Your task to perform on an android device: open app "DoorDash - Dasher" Image 0: 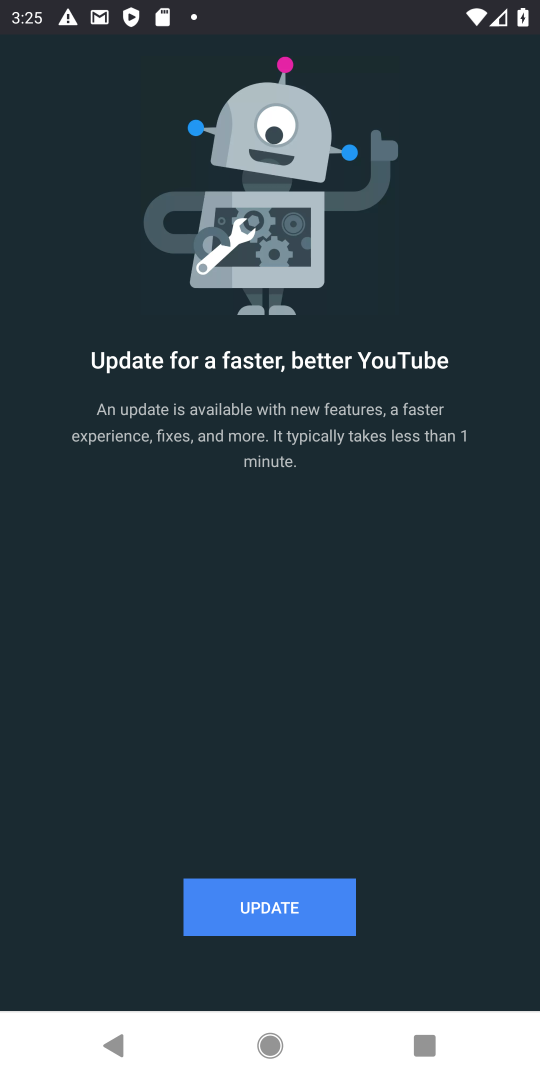
Step 0: press home button
Your task to perform on an android device: open app "DoorDash - Dasher" Image 1: 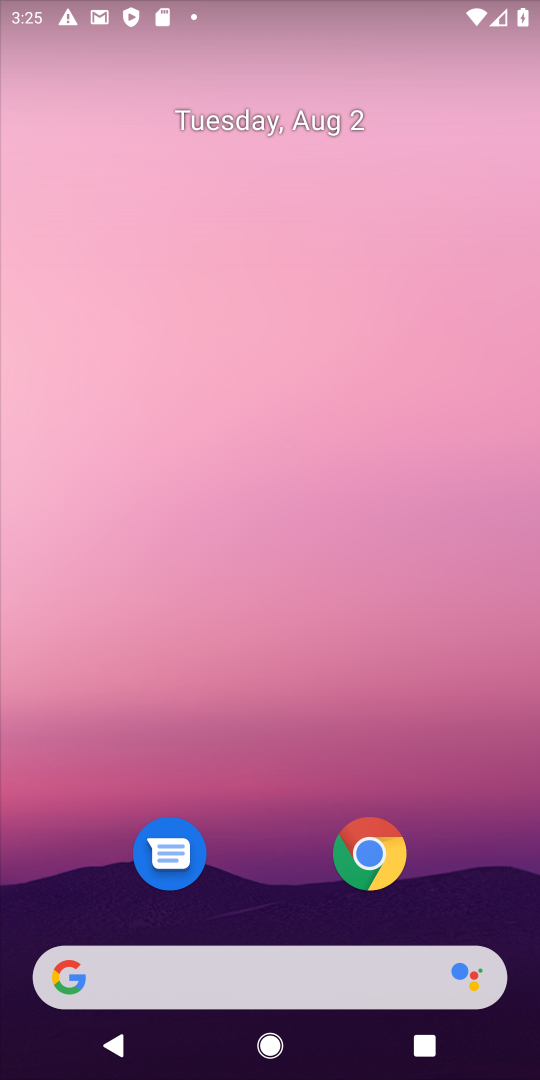
Step 1: drag from (305, 1074) to (305, 320)
Your task to perform on an android device: open app "DoorDash - Dasher" Image 2: 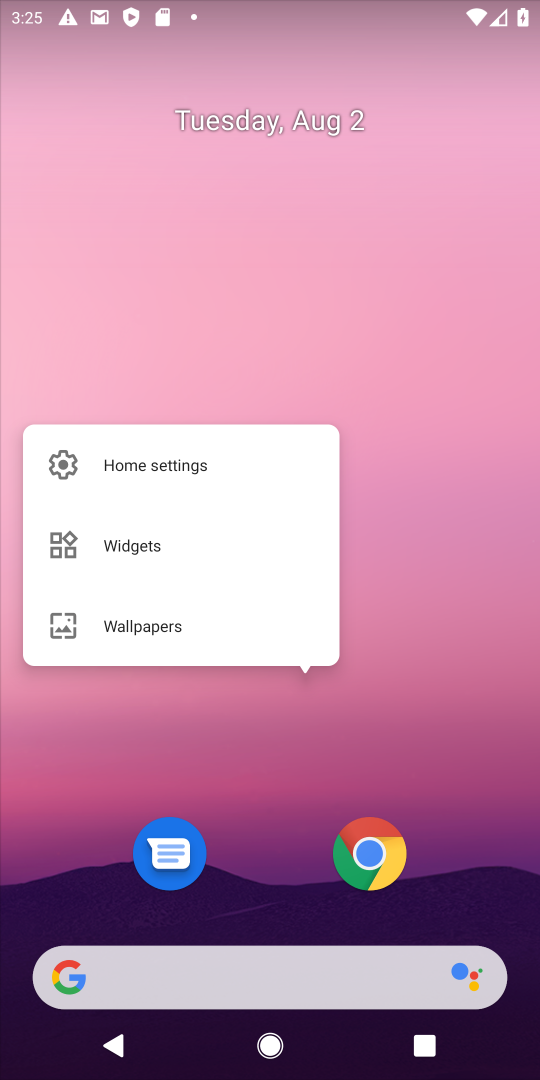
Step 2: click (368, 579)
Your task to perform on an android device: open app "DoorDash - Dasher" Image 3: 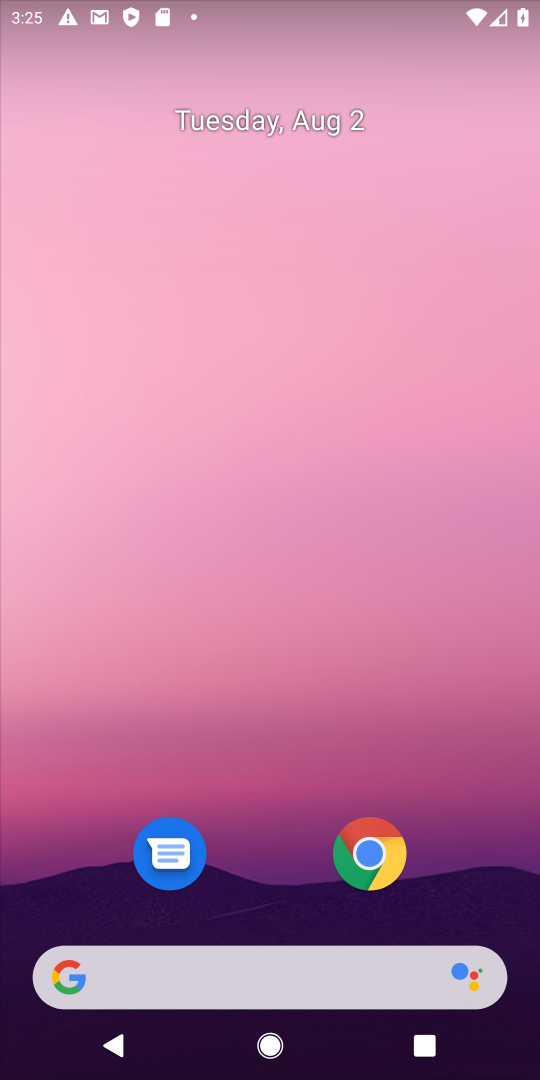
Step 3: drag from (311, 954) to (309, 746)
Your task to perform on an android device: open app "DoorDash - Dasher" Image 4: 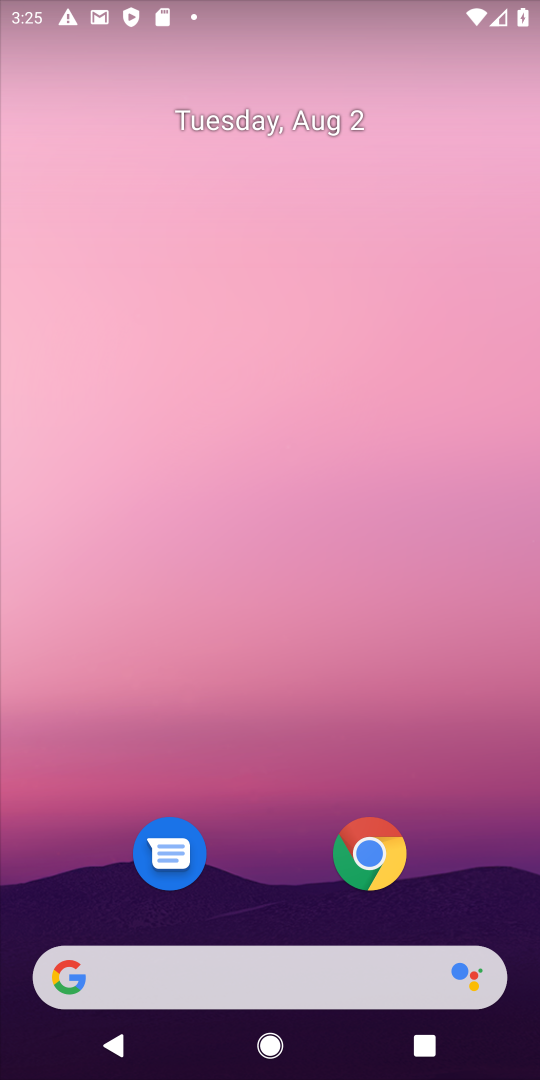
Step 4: drag from (298, 1077) to (298, 110)
Your task to perform on an android device: open app "DoorDash - Dasher" Image 5: 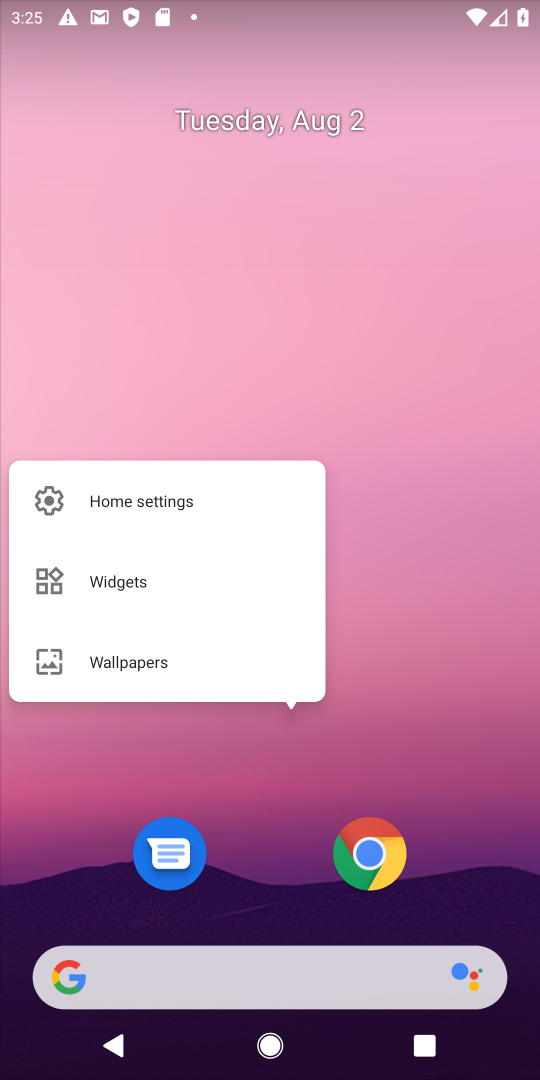
Step 5: click (345, 373)
Your task to perform on an android device: open app "DoorDash - Dasher" Image 6: 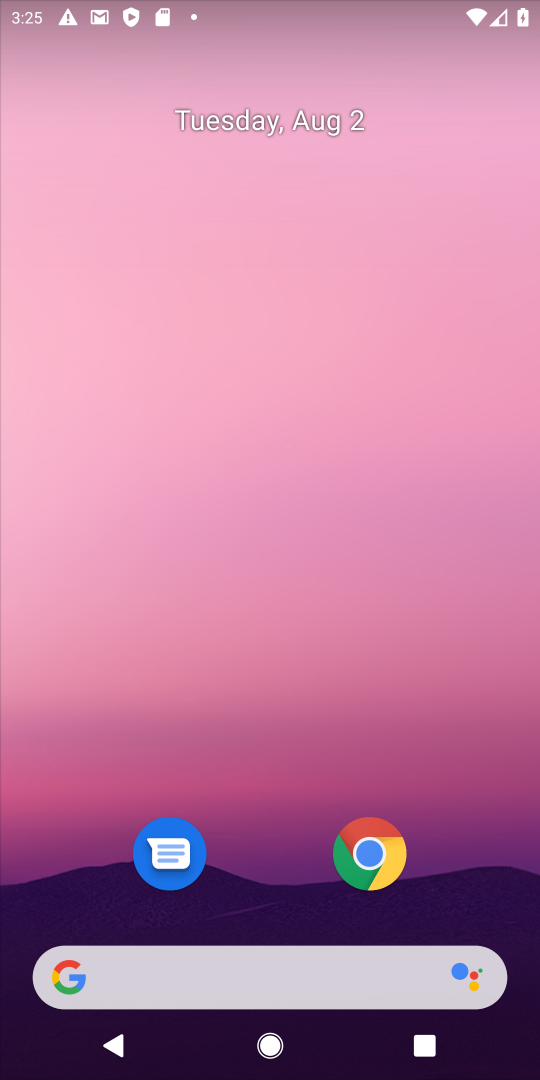
Step 6: drag from (303, 1073) to (329, 324)
Your task to perform on an android device: open app "DoorDash - Dasher" Image 7: 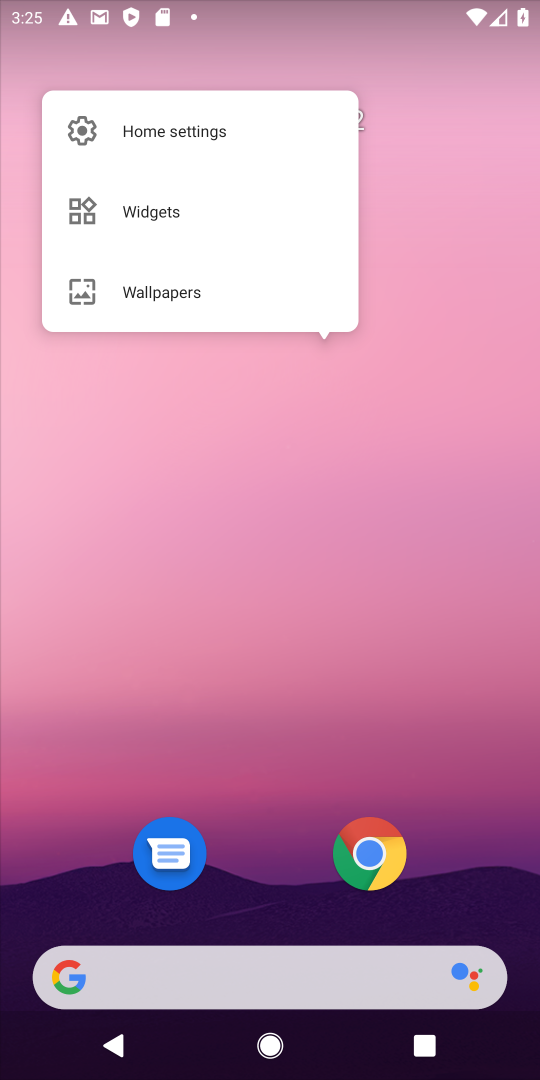
Step 7: click (347, 552)
Your task to perform on an android device: open app "DoorDash - Dasher" Image 8: 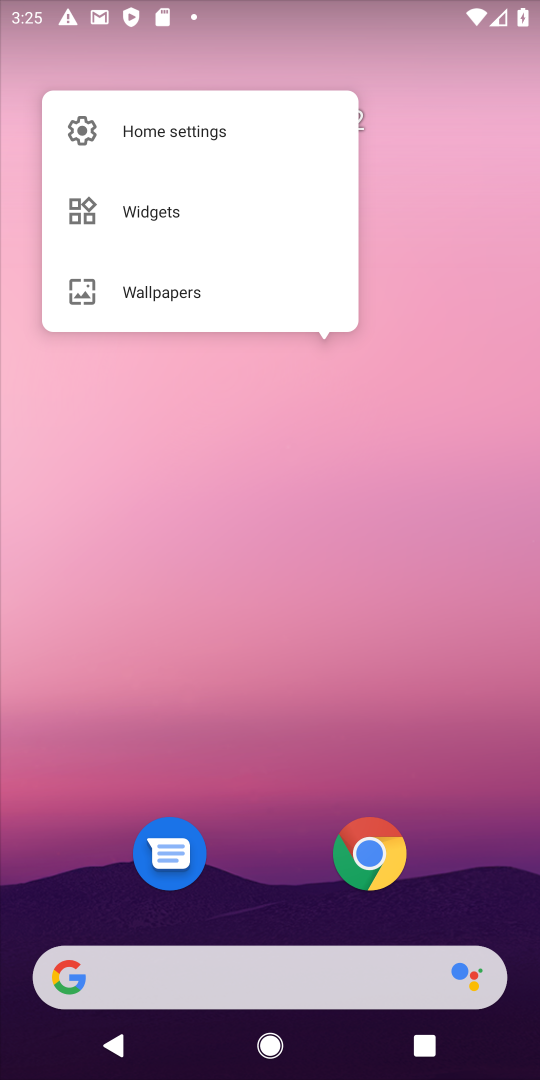
Step 8: click (373, 436)
Your task to perform on an android device: open app "DoorDash - Dasher" Image 9: 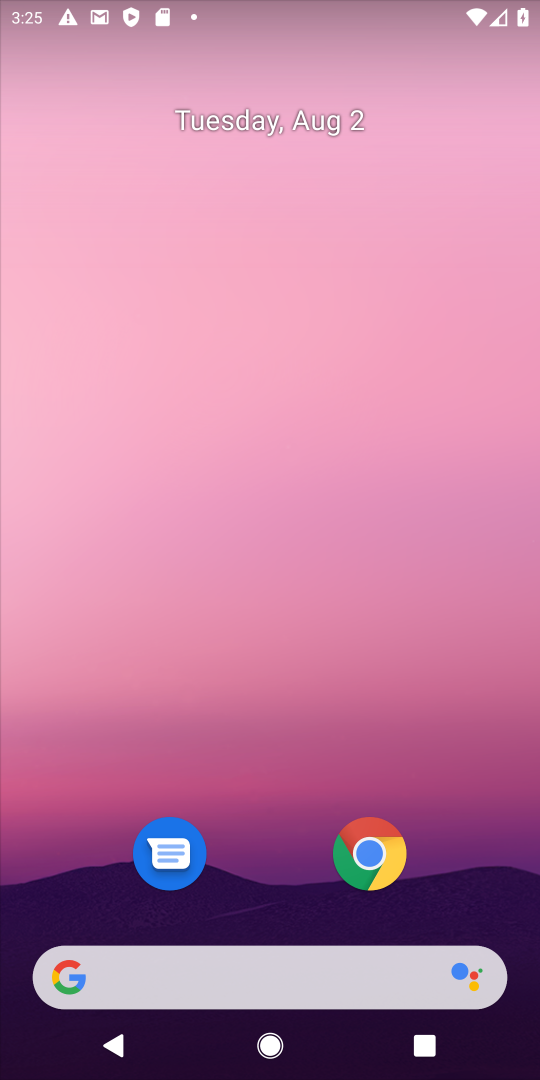
Step 9: drag from (290, 743) to (279, 22)
Your task to perform on an android device: open app "DoorDash - Dasher" Image 10: 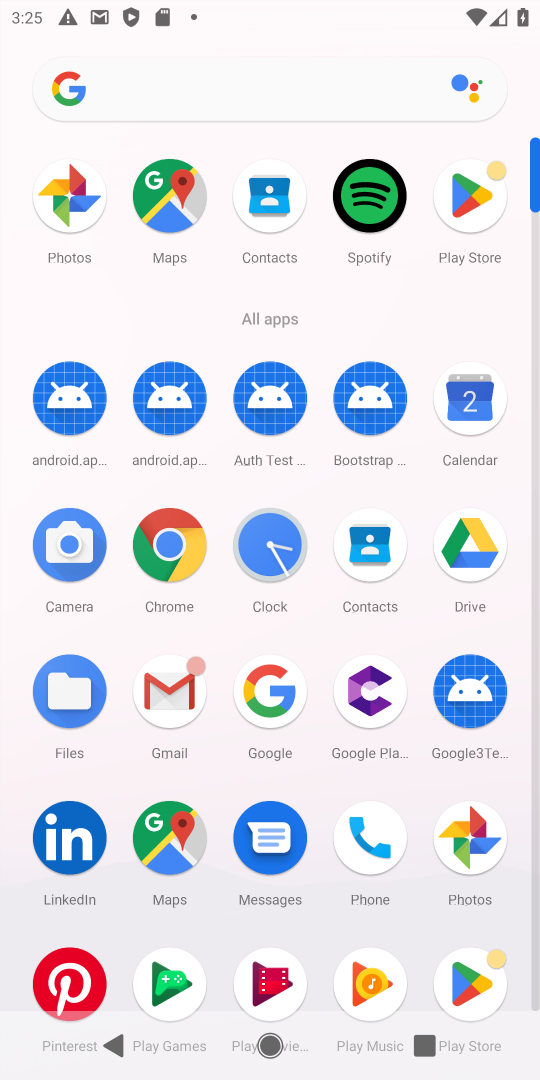
Step 10: click (476, 976)
Your task to perform on an android device: open app "DoorDash - Dasher" Image 11: 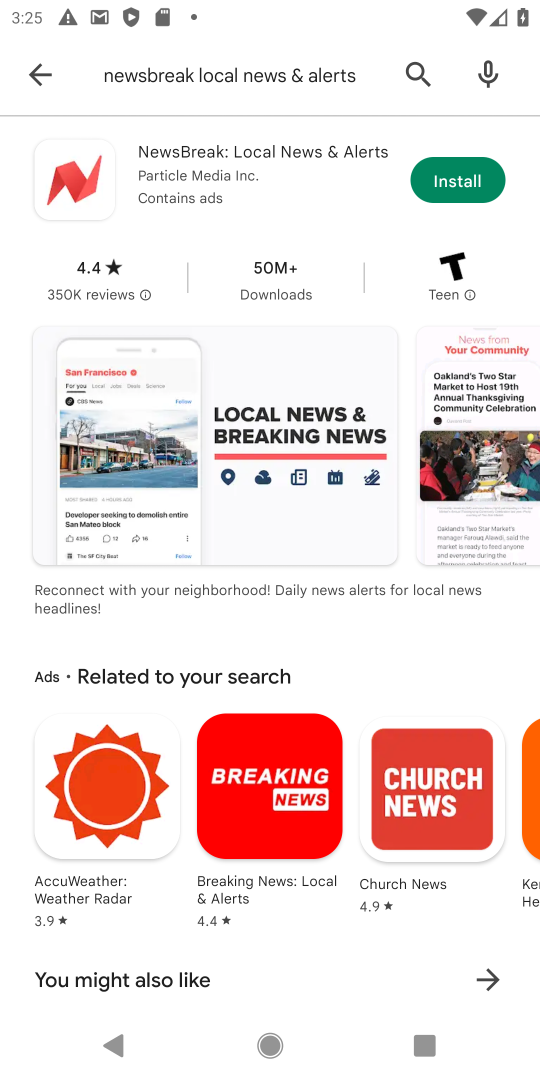
Step 11: click (416, 66)
Your task to perform on an android device: open app "DoorDash - Dasher" Image 12: 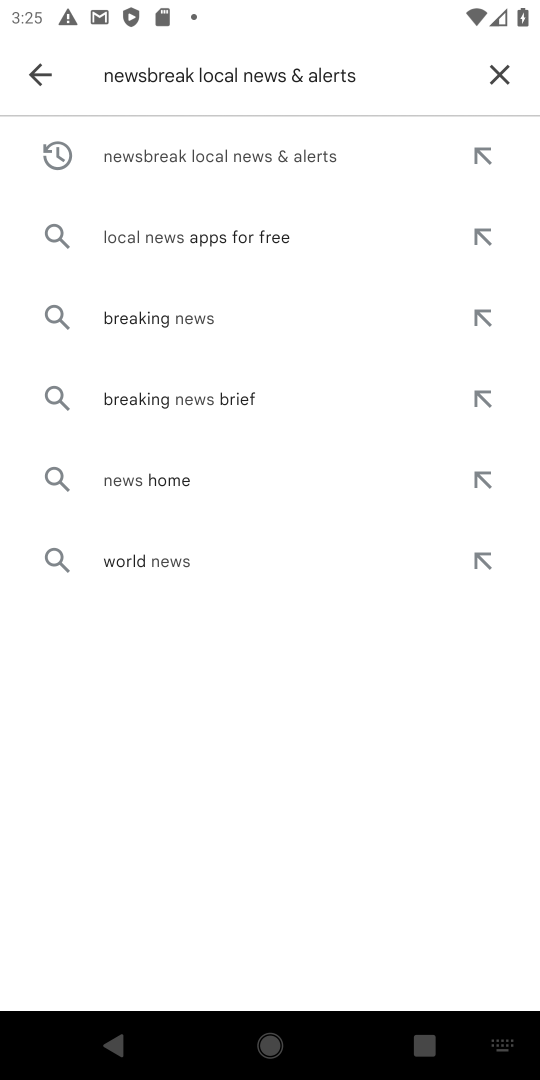
Step 12: click (500, 63)
Your task to perform on an android device: open app "DoorDash - Dasher" Image 13: 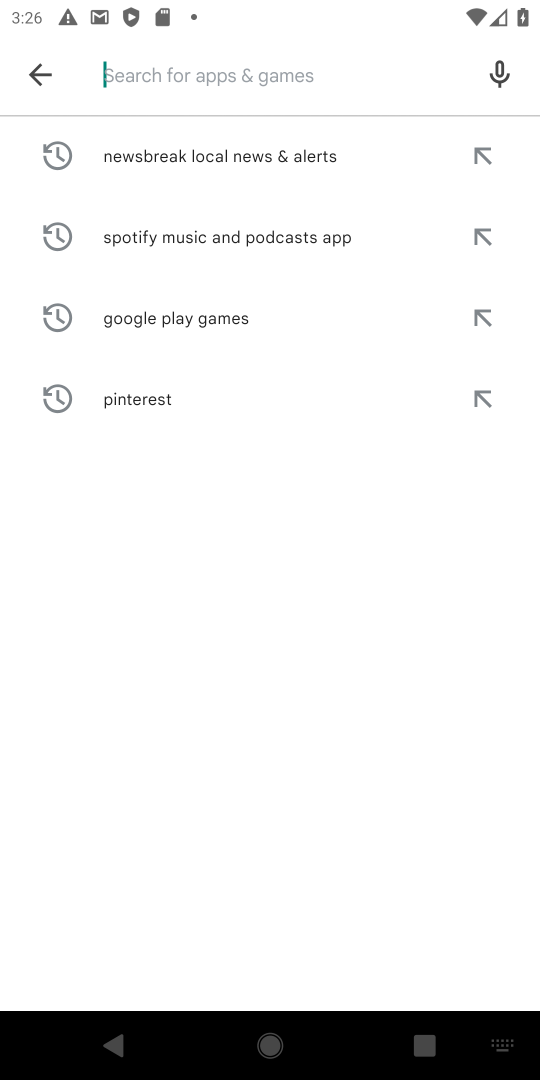
Step 13: type "DoorDash - Dasher"
Your task to perform on an android device: open app "DoorDash - Dasher" Image 14: 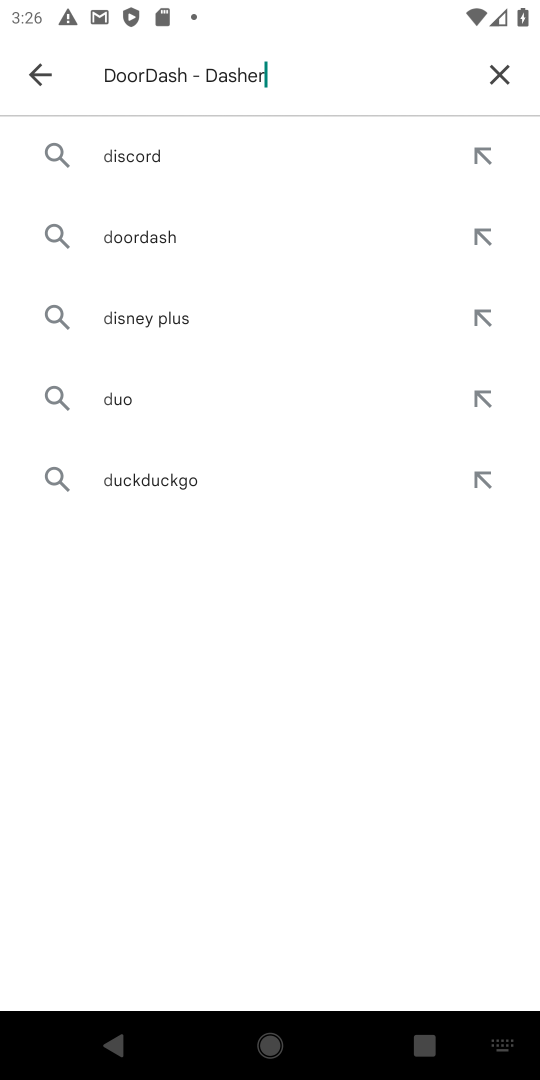
Step 14: type ""
Your task to perform on an android device: open app "DoorDash - Dasher" Image 15: 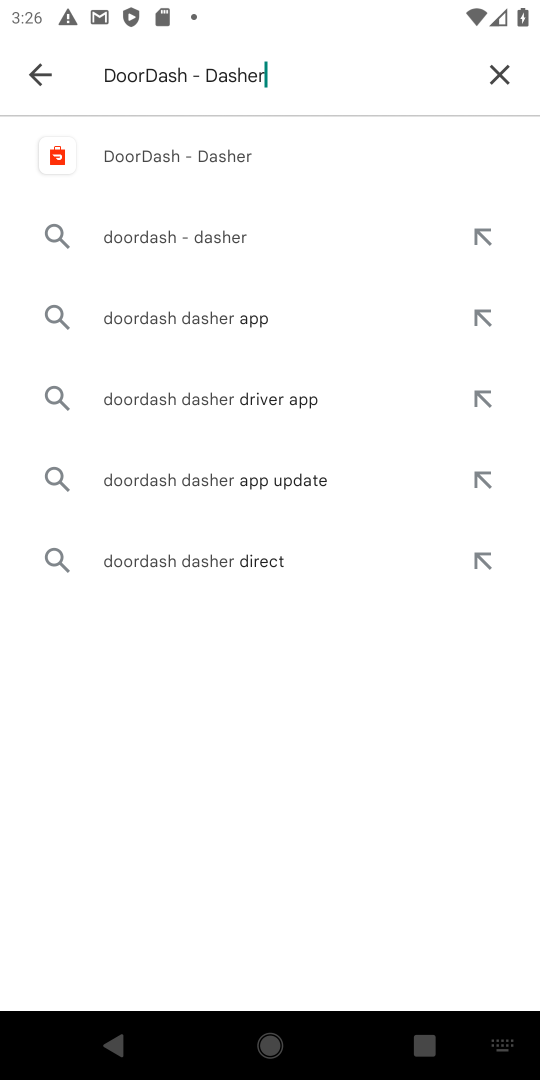
Step 15: click (146, 149)
Your task to perform on an android device: open app "DoorDash - Dasher" Image 16: 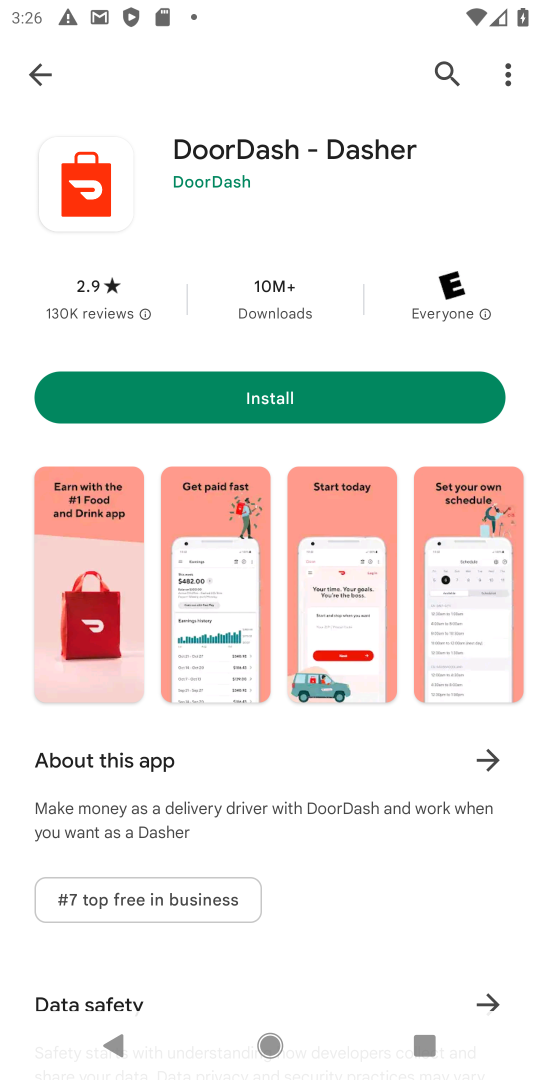
Step 16: task complete